Your task to perform on an android device: Open calendar and show me the second week of next month Image 0: 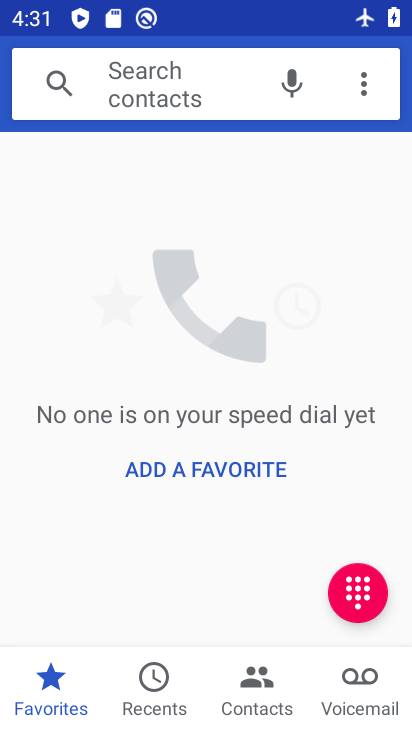
Step 0: press back button
Your task to perform on an android device: Open calendar and show me the second week of next month Image 1: 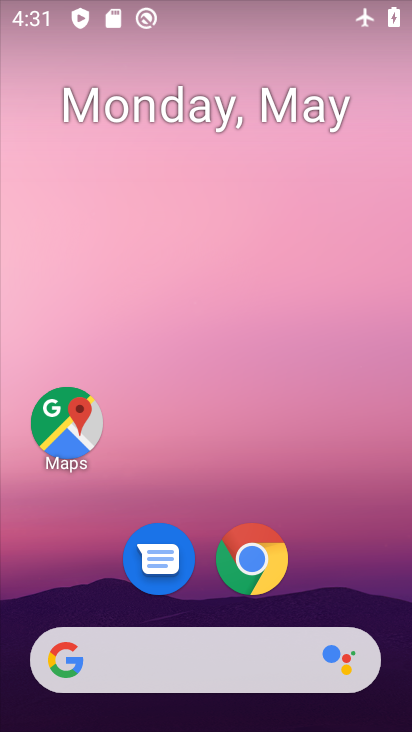
Step 1: drag from (343, 548) to (262, 28)
Your task to perform on an android device: Open calendar and show me the second week of next month Image 2: 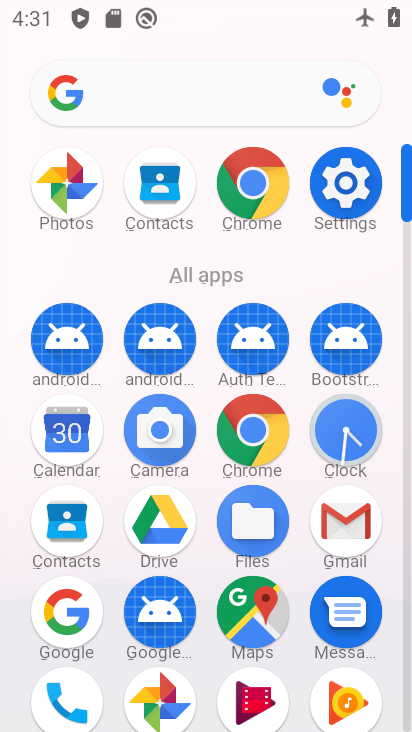
Step 2: drag from (0, 464) to (15, 198)
Your task to perform on an android device: Open calendar and show me the second week of next month Image 3: 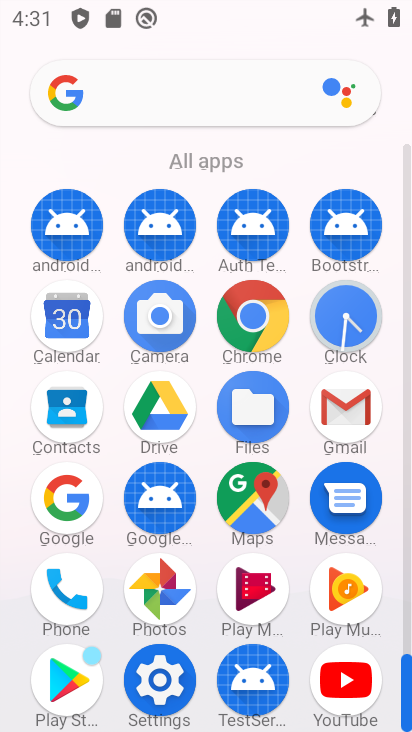
Step 3: click (60, 312)
Your task to perform on an android device: Open calendar and show me the second week of next month Image 4: 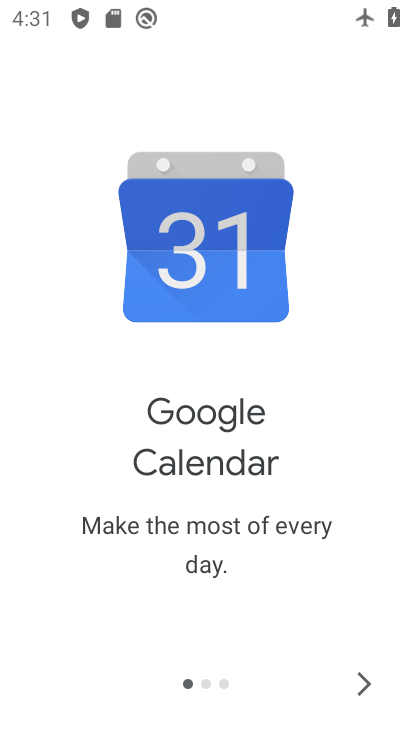
Step 4: click (355, 677)
Your task to perform on an android device: Open calendar and show me the second week of next month Image 5: 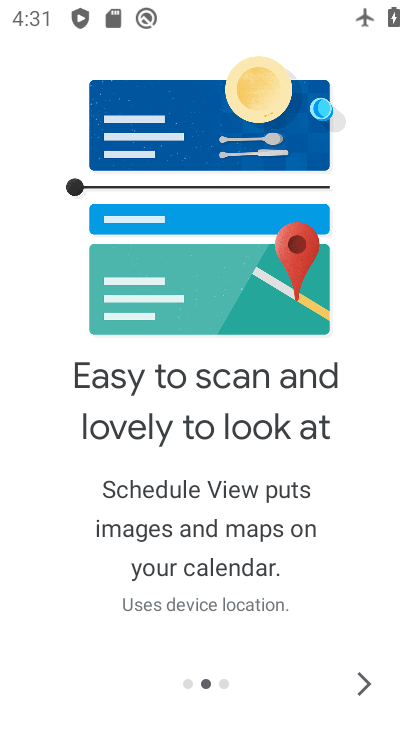
Step 5: click (355, 677)
Your task to perform on an android device: Open calendar and show me the second week of next month Image 6: 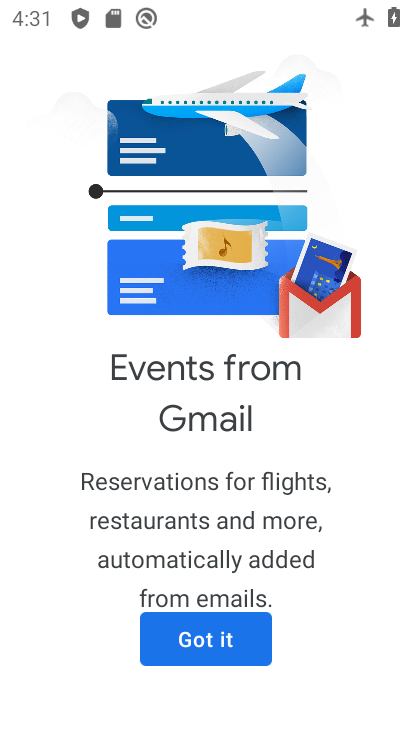
Step 6: click (234, 629)
Your task to perform on an android device: Open calendar and show me the second week of next month Image 7: 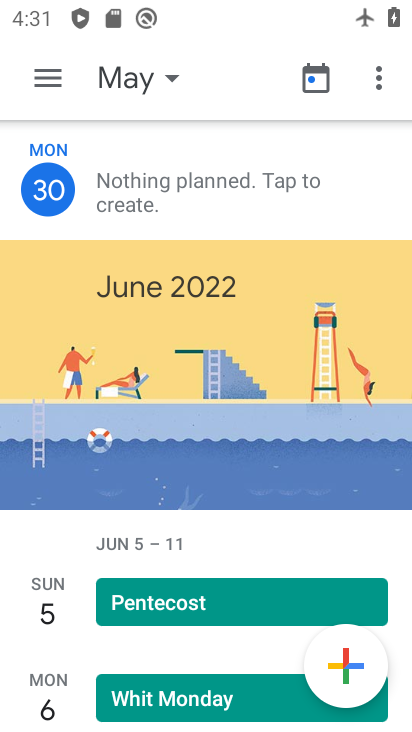
Step 7: click (126, 80)
Your task to perform on an android device: Open calendar and show me the second week of next month Image 8: 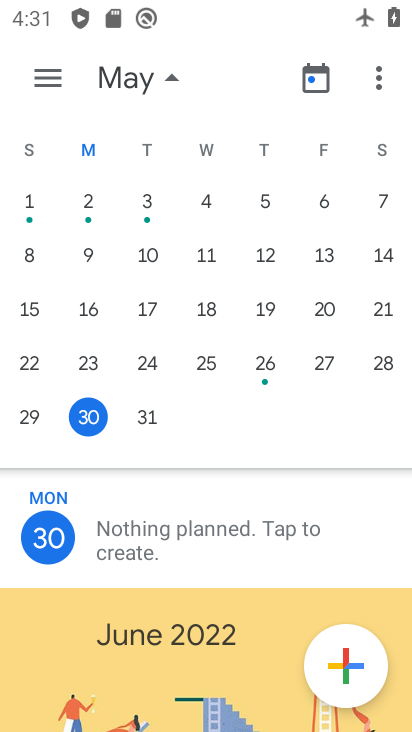
Step 8: drag from (388, 308) to (4, 175)
Your task to perform on an android device: Open calendar and show me the second week of next month Image 9: 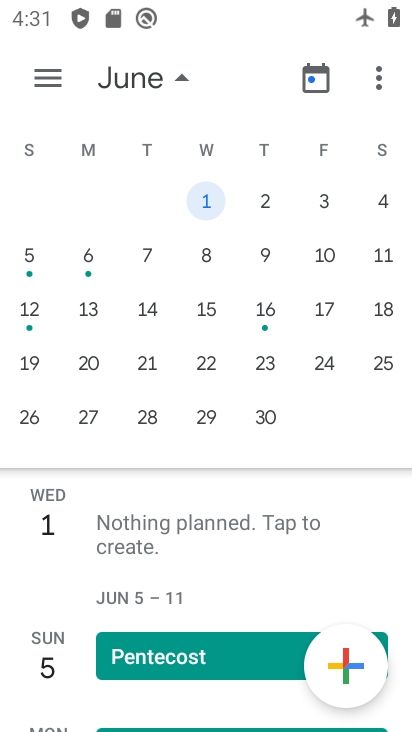
Step 9: click (30, 252)
Your task to perform on an android device: Open calendar and show me the second week of next month Image 10: 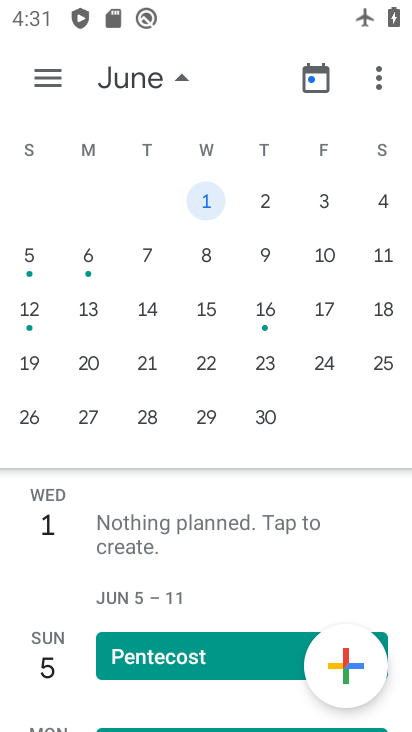
Step 10: click (31, 252)
Your task to perform on an android device: Open calendar and show me the second week of next month Image 11: 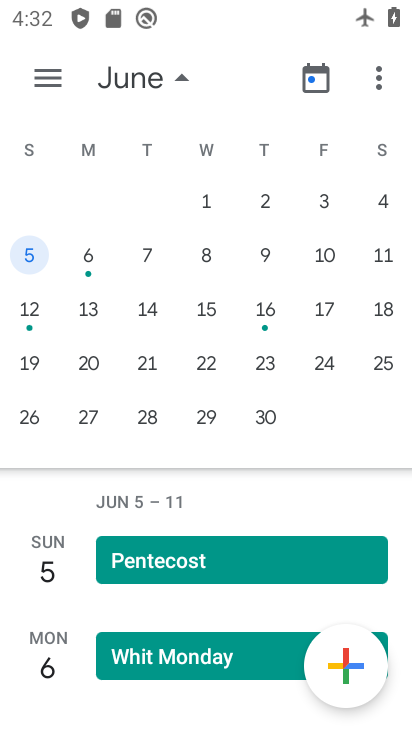
Step 11: click (42, 82)
Your task to perform on an android device: Open calendar and show me the second week of next month Image 12: 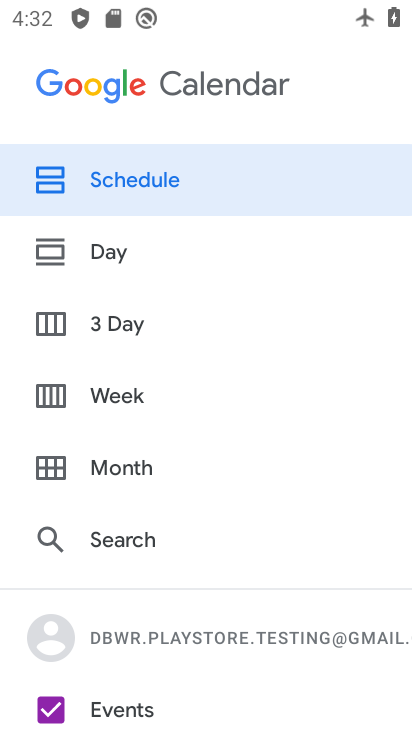
Step 12: click (122, 396)
Your task to perform on an android device: Open calendar and show me the second week of next month Image 13: 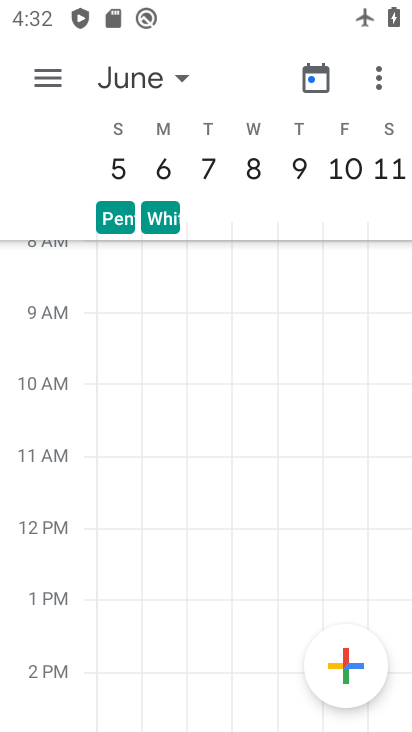
Step 13: task complete